Your task to perform on an android device: turn on the 24-hour format for clock Image 0: 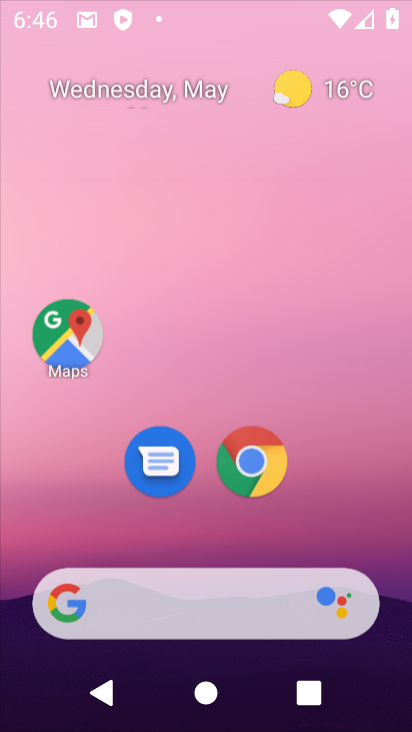
Step 0: press home button
Your task to perform on an android device: turn on the 24-hour format for clock Image 1: 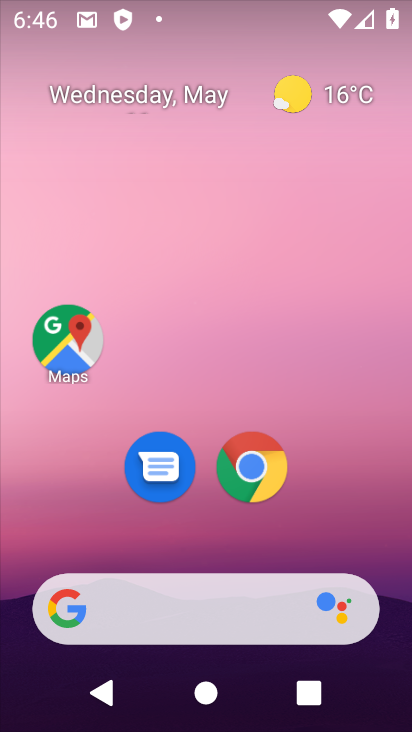
Step 1: drag from (358, 501) to (253, 29)
Your task to perform on an android device: turn on the 24-hour format for clock Image 2: 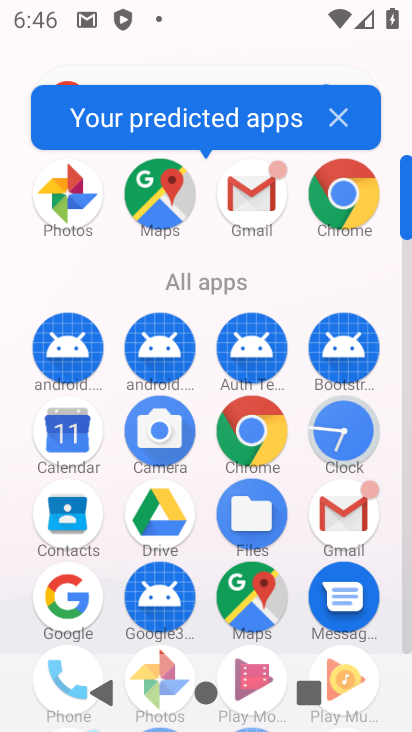
Step 2: click (346, 433)
Your task to perform on an android device: turn on the 24-hour format for clock Image 3: 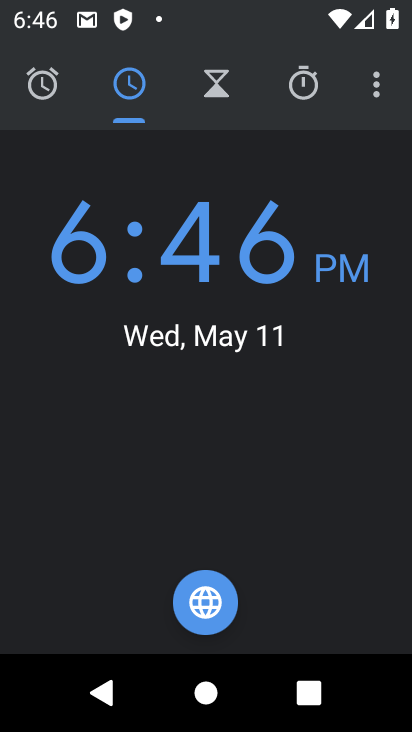
Step 3: click (376, 85)
Your task to perform on an android device: turn on the 24-hour format for clock Image 4: 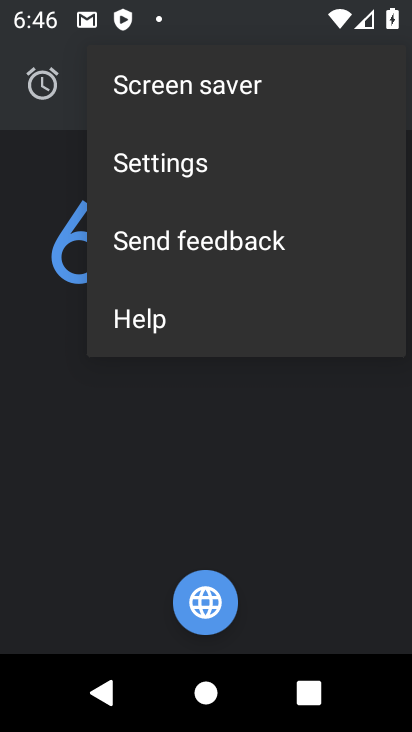
Step 4: click (200, 160)
Your task to perform on an android device: turn on the 24-hour format for clock Image 5: 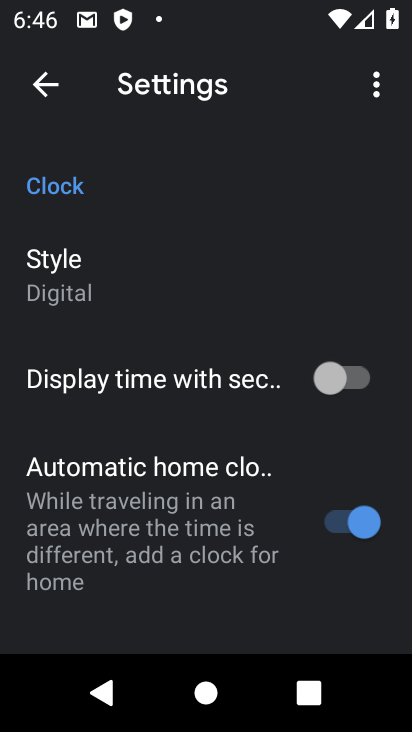
Step 5: drag from (280, 581) to (163, 212)
Your task to perform on an android device: turn on the 24-hour format for clock Image 6: 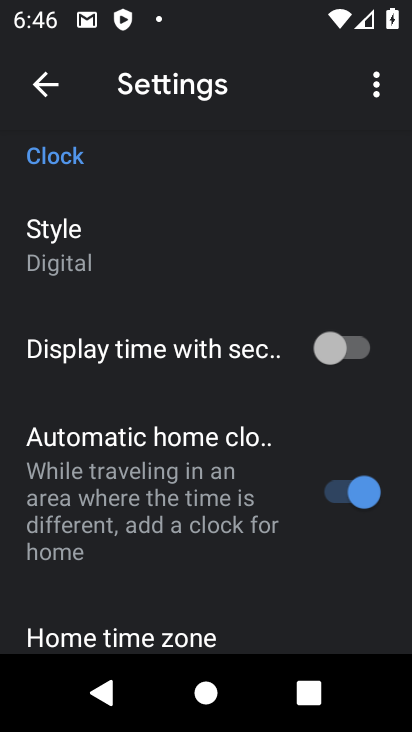
Step 6: drag from (195, 557) to (181, 237)
Your task to perform on an android device: turn on the 24-hour format for clock Image 7: 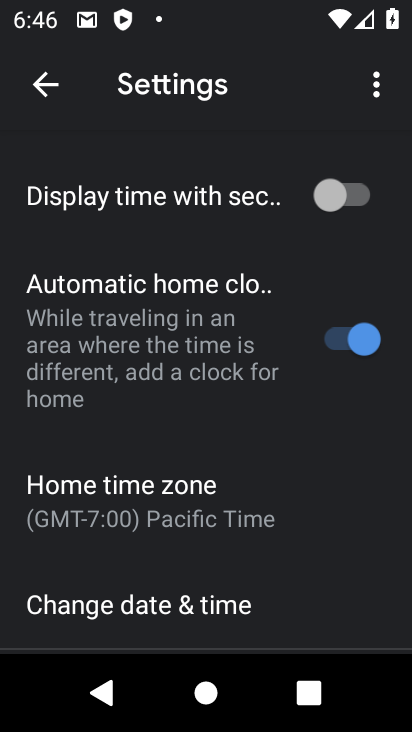
Step 7: click (195, 602)
Your task to perform on an android device: turn on the 24-hour format for clock Image 8: 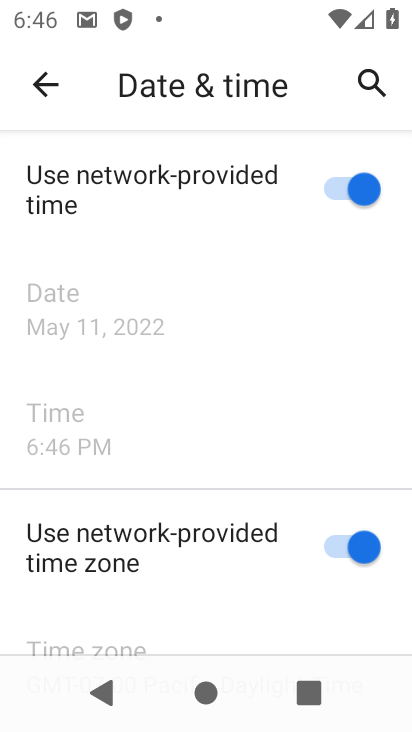
Step 8: drag from (227, 459) to (167, 158)
Your task to perform on an android device: turn on the 24-hour format for clock Image 9: 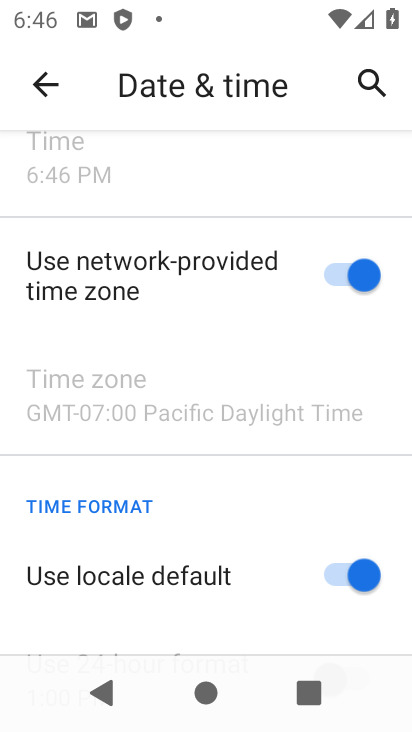
Step 9: drag from (200, 497) to (155, 228)
Your task to perform on an android device: turn on the 24-hour format for clock Image 10: 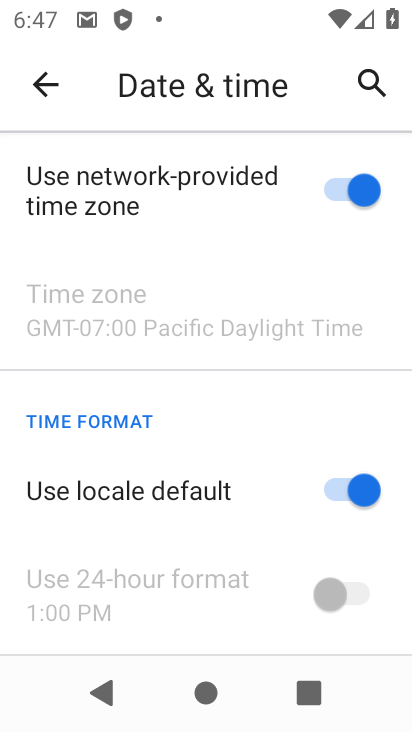
Step 10: click (360, 488)
Your task to perform on an android device: turn on the 24-hour format for clock Image 11: 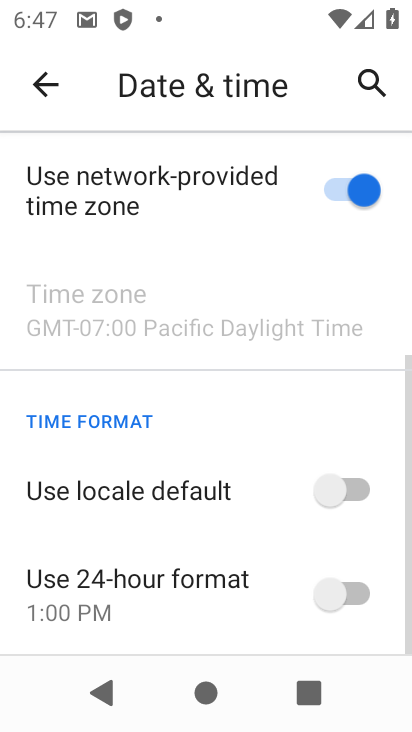
Step 11: click (330, 598)
Your task to perform on an android device: turn on the 24-hour format for clock Image 12: 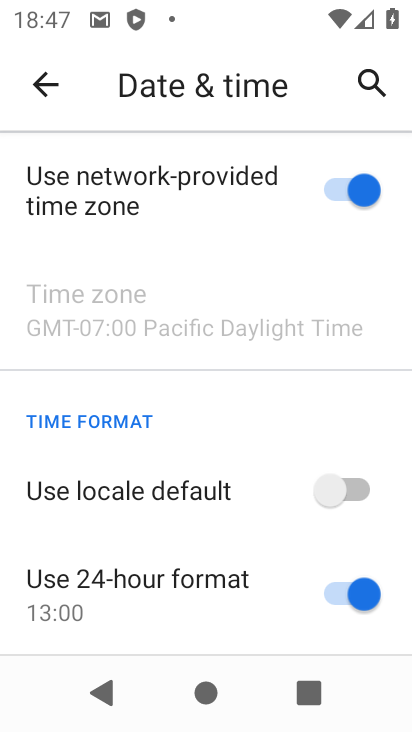
Step 12: task complete